Your task to perform on an android device: Go to Google maps Image 0: 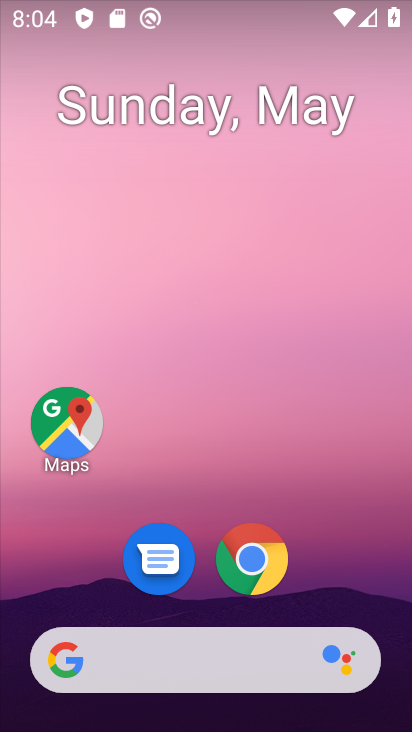
Step 0: click (6, 414)
Your task to perform on an android device: Go to Google maps Image 1: 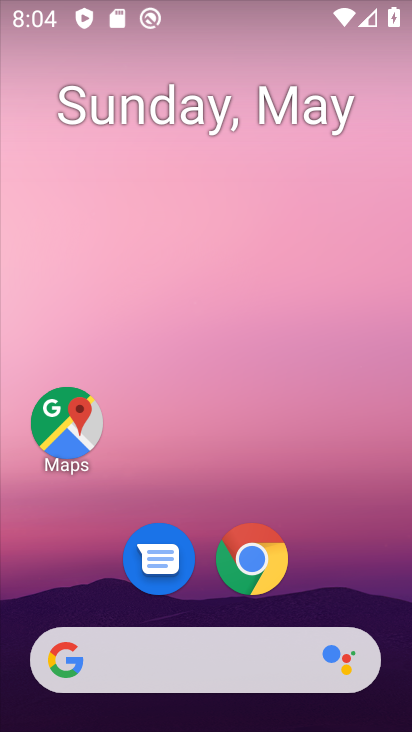
Step 1: click (72, 422)
Your task to perform on an android device: Go to Google maps Image 2: 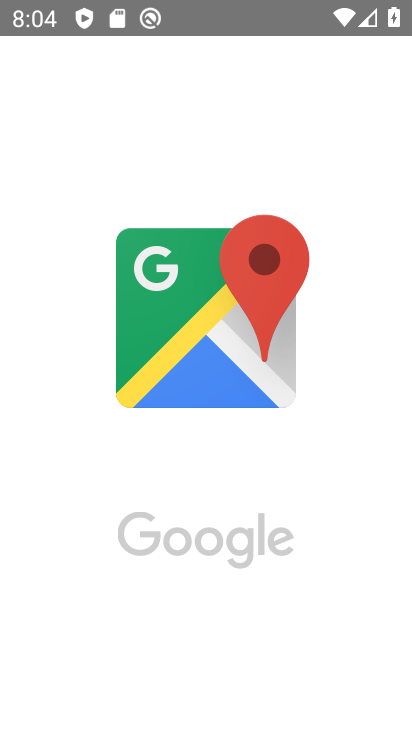
Step 2: task complete